Your task to perform on an android device: Check the news Image 0: 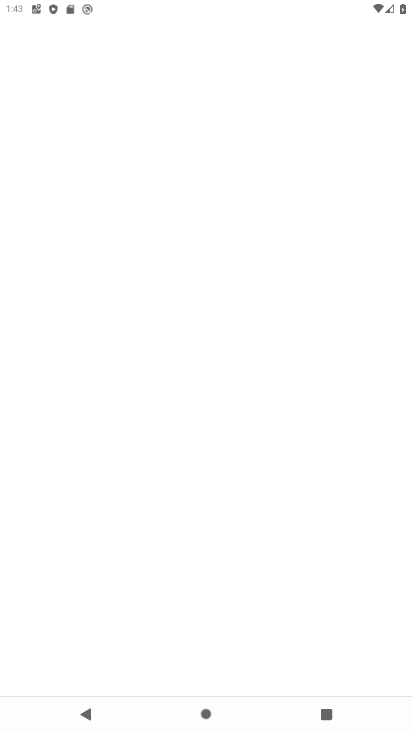
Step 0: drag from (238, 661) to (297, 302)
Your task to perform on an android device: Check the news Image 1: 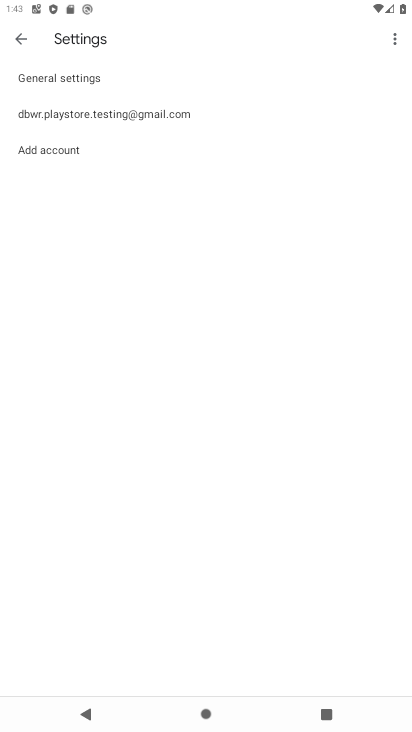
Step 1: press home button
Your task to perform on an android device: Check the news Image 2: 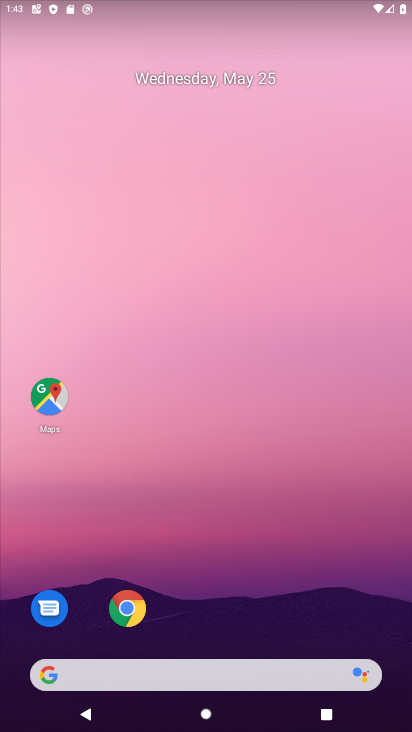
Step 2: drag from (196, 650) to (313, 212)
Your task to perform on an android device: Check the news Image 3: 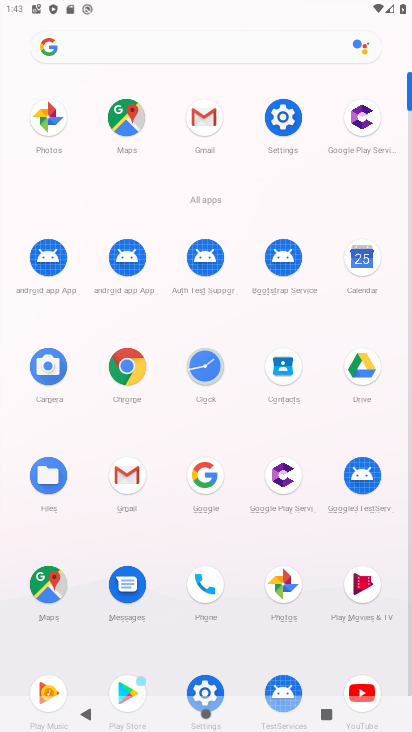
Step 3: click (206, 479)
Your task to perform on an android device: Check the news Image 4: 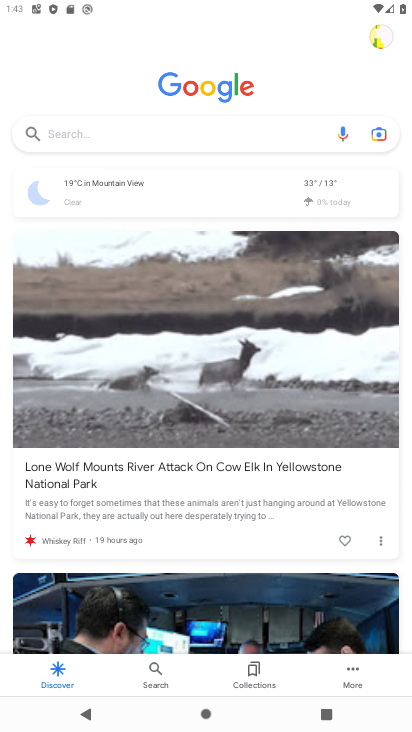
Step 4: drag from (189, 135) to (93, 135)
Your task to perform on an android device: Check the news Image 5: 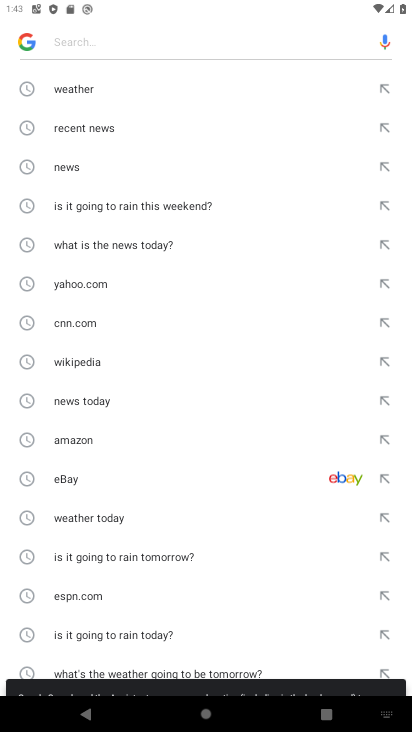
Step 5: click (82, 164)
Your task to perform on an android device: Check the news Image 6: 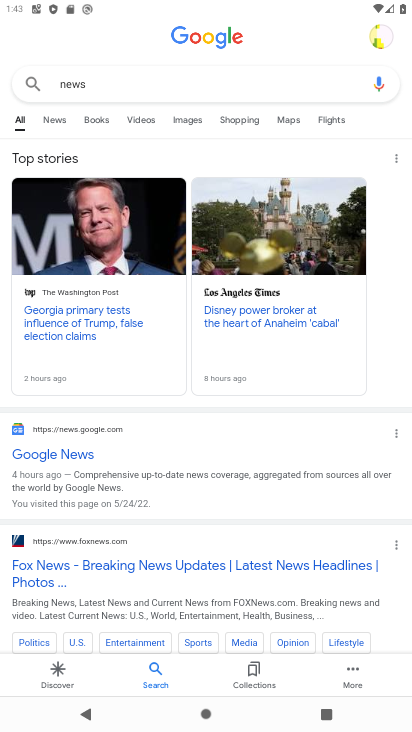
Step 6: task complete